Your task to perform on an android device: Open the stopwatch Image 0: 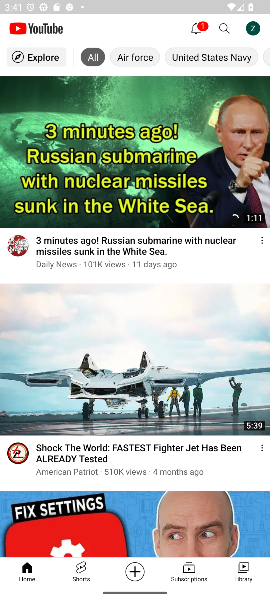
Step 0: press home button
Your task to perform on an android device: Open the stopwatch Image 1: 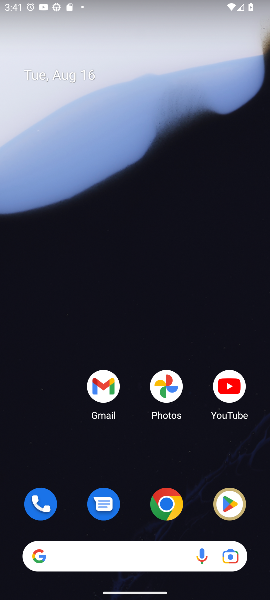
Step 1: drag from (131, 493) to (118, 43)
Your task to perform on an android device: Open the stopwatch Image 2: 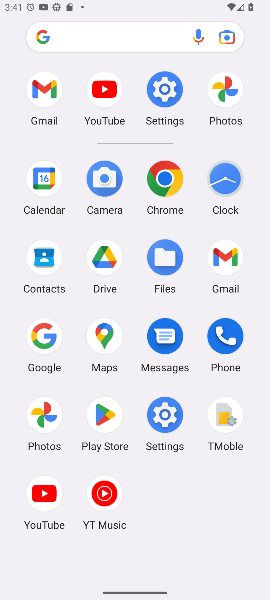
Step 2: click (227, 179)
Your task to perform on an android device: Open the stopwatch Image 3: 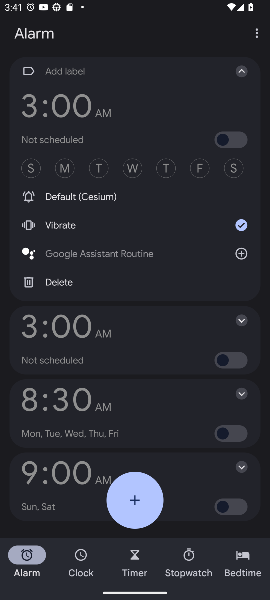
Step 3: click (191, 555)
Your task to perform on an android device: Open the stopwatch Image 4: 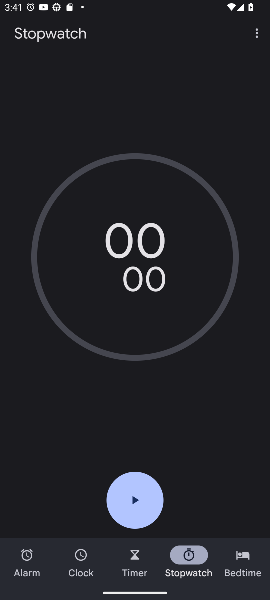
Step 4: click (179, 141)
Your task to perform on an android device: Open the stopwatch Image 5: 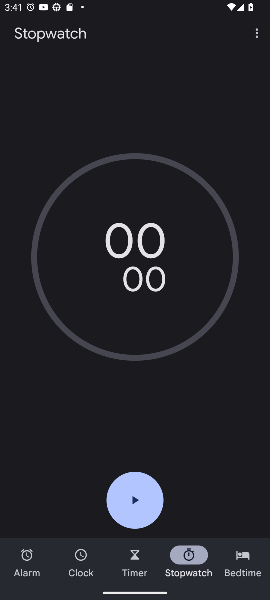
Step 5: task complete